Your task to perform on an android device: Open Reddit.com Image 0: 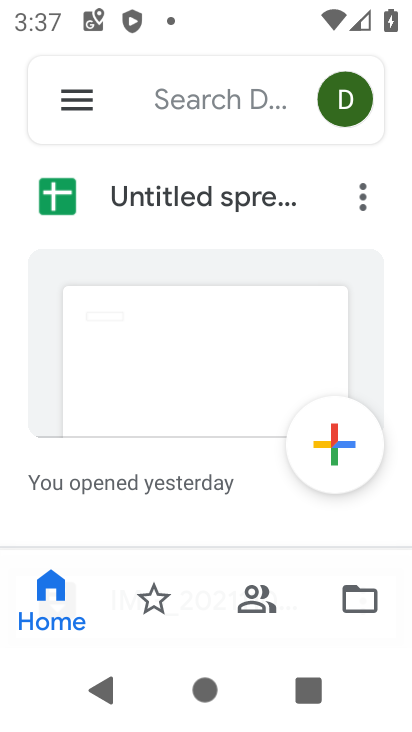
Step 0: press home button
Your task to perform on an android device: Open Reddit.com Image 1: 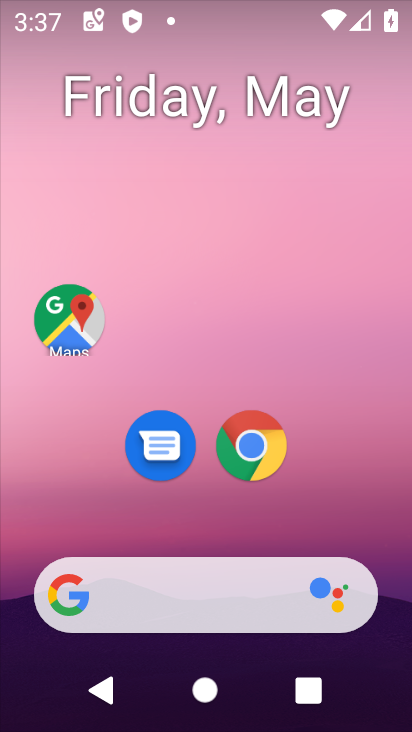
Step 1: click (261, 452)
Your task to perform on an android device: Open Reddit.com Image 2: 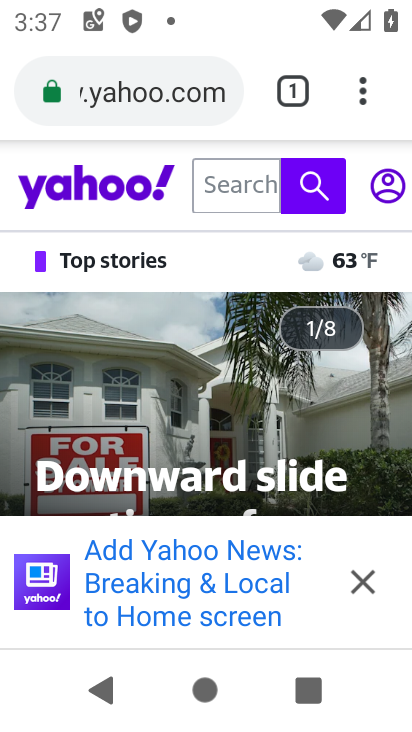
Step 2: click (168, 97)
Your task to perform on an android device: Open Reddit.com Image 3: 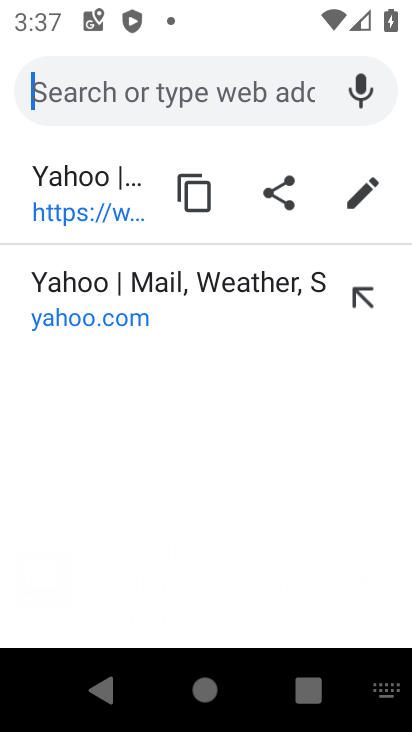
Step 3: type "Reddit.com"
Your task to perform on an android device: Open Reddit.com Image 4: 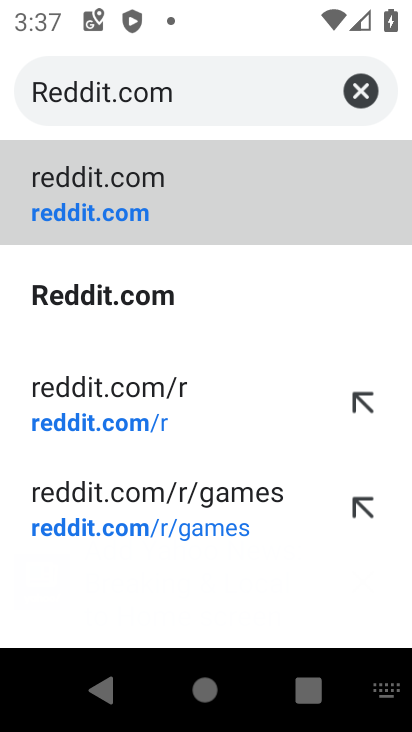
Step 4: click (74, 219)
Your task to perform on an android device: Open Reddit.com Image 5: 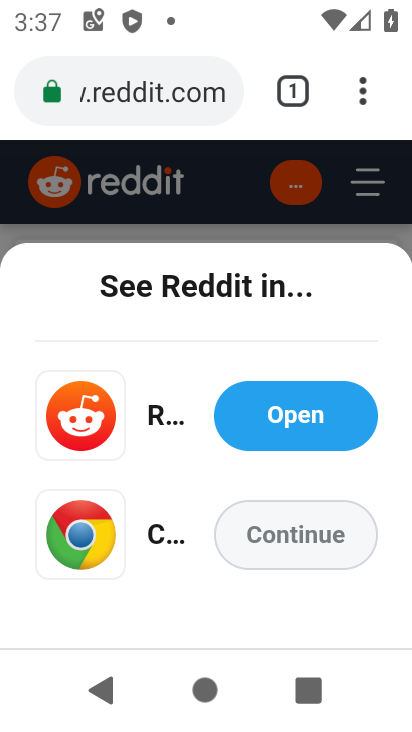
Step 5: task complete